Your task to perform on an android device: change alarm snooze length Image 0: 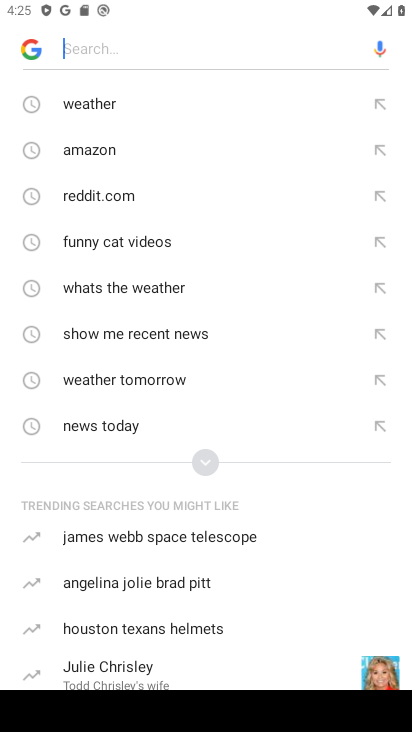
Step 0: press home button
Your task to perform on an android device: change alarm snooze length Image 1: 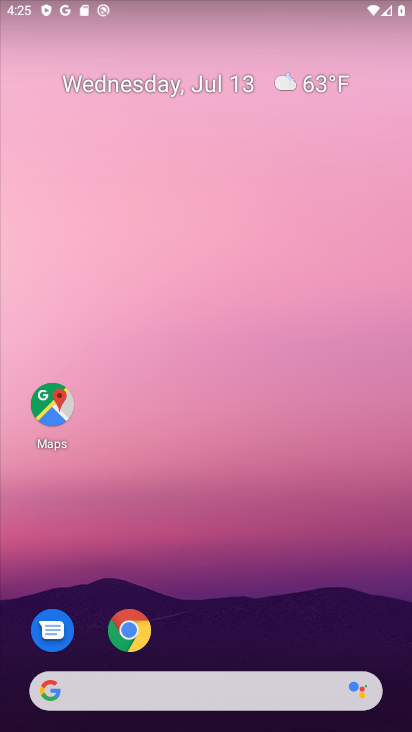
Step 1: drag from (243, 633) to (281, 169)
Your task to perform on an android device: change alarm snooze length Image 2: 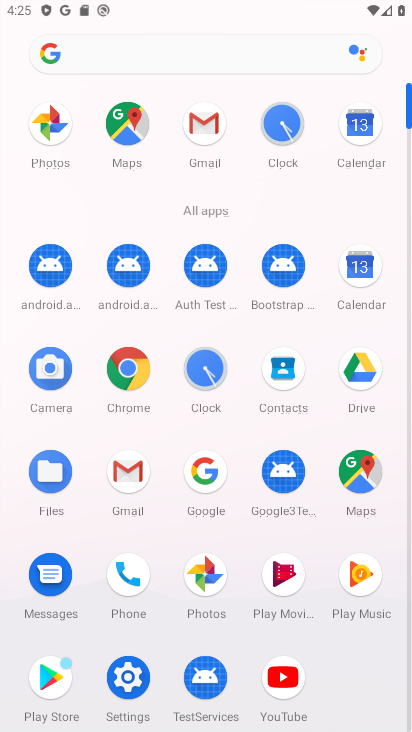
Step 2: click (211, 369)
Your task to perform on an android device: change alarm snooze length Image 3: 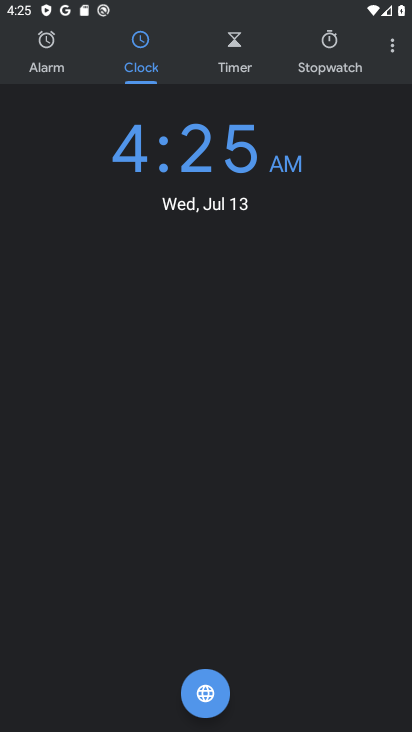
Step 3: click (388, 41)
Your task to perform on an android device: change alarm snooze length Image 4: 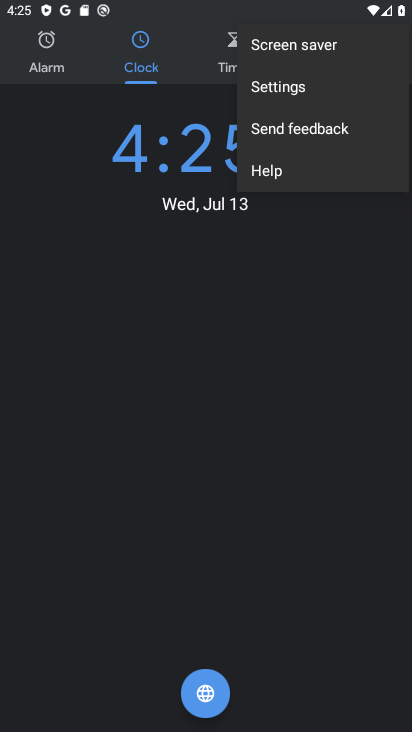
Step 4: click (272, 93)
Your task to perform on an android device: change alarm snooze length Image 5: 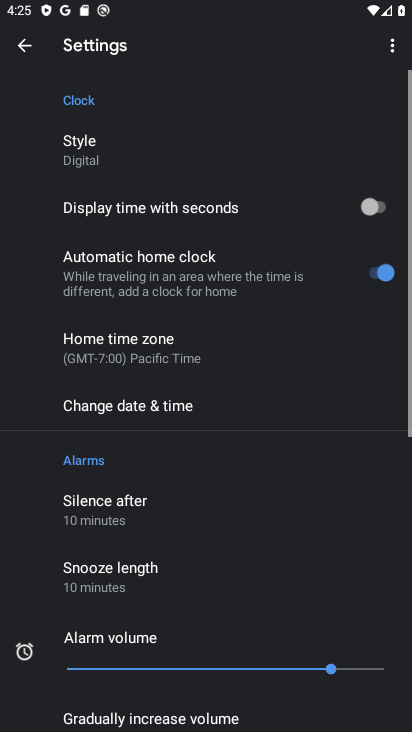
Step 5: drag from (250, 568) to (301, 272)
Your task to perform on an android device: change alarm snooze length Image 6: 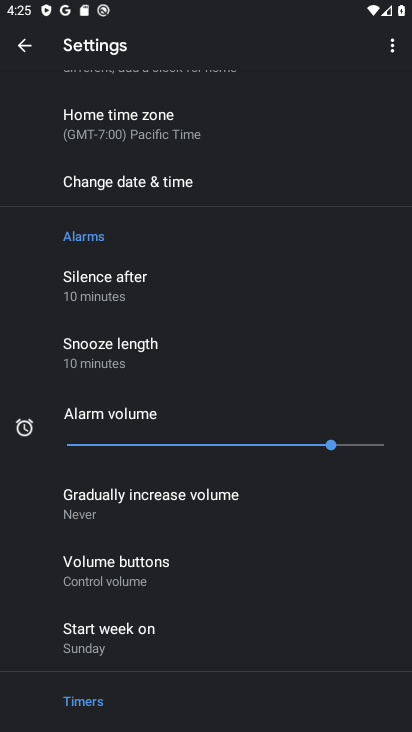
Step 6: click (102, 348)
Your task to perform on an android device: change alarm snooze length Image 7: 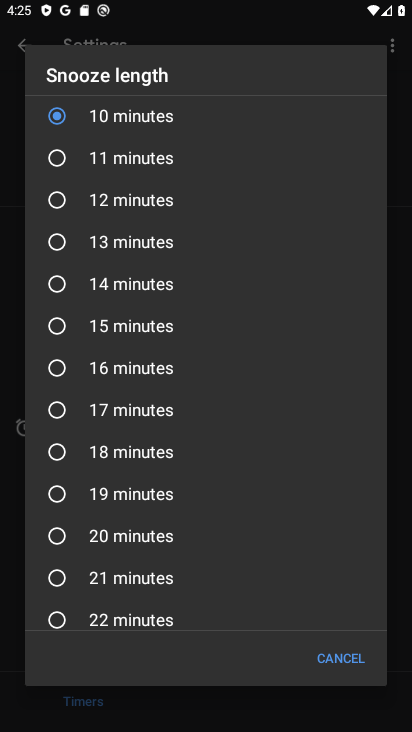
Step 7: click (117, 215)
Your task to perform on an android device: change alarm snooze length Image 8: 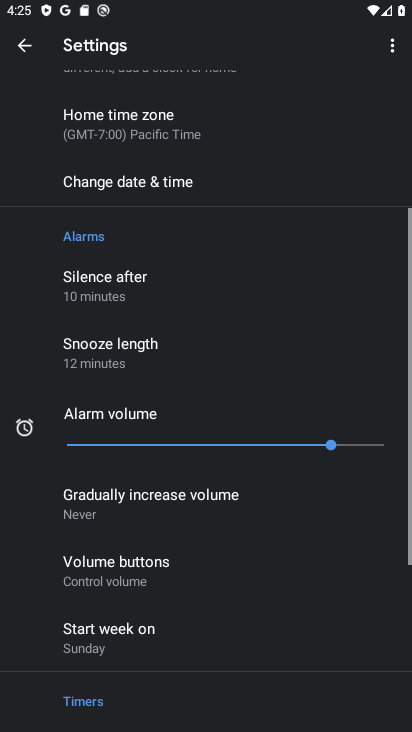
Step 8: task complete